Your task to perform on an android device: open the mobile data screen to see how much data has been used Image 0: 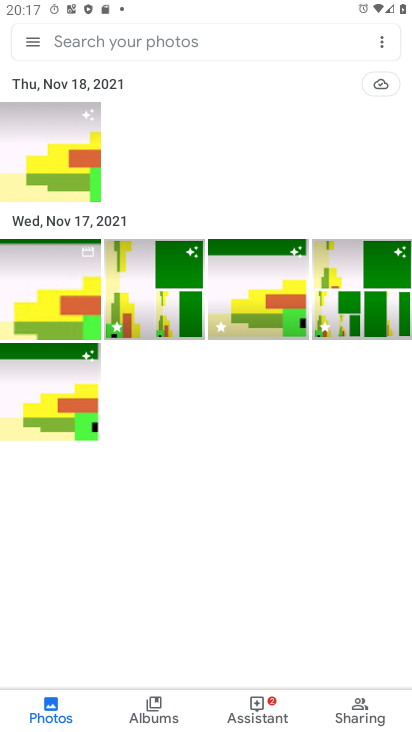
Step 0: press home button
Your task to perform on an android device: open the mobile data screen to see how much data has been used Image 1: 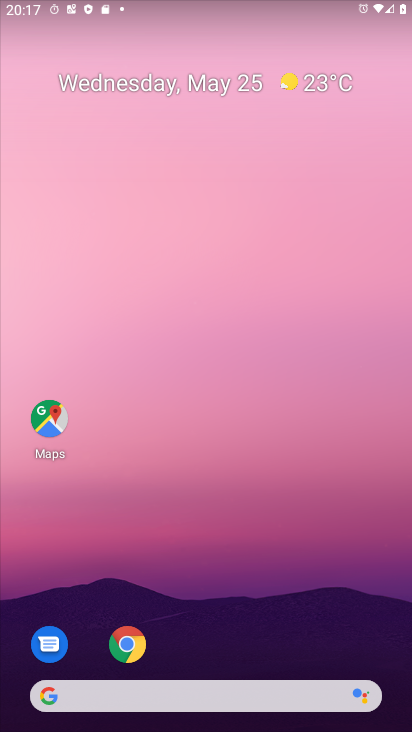
Step 1: drag from (308, 712) to (250, 89)
Your task to perform on an android device: open the mobile data screen to see how much data has been used Image 2: 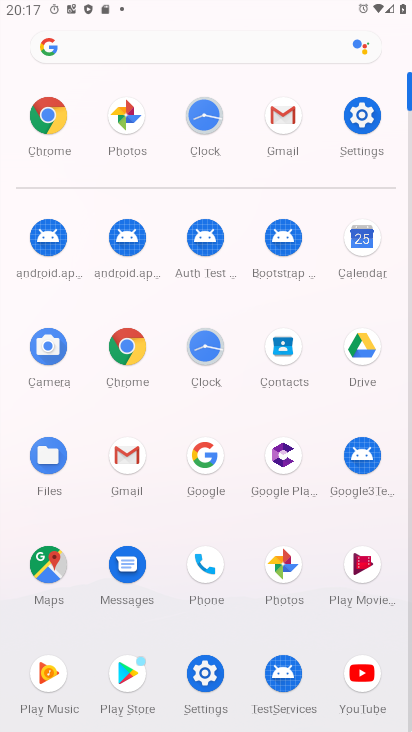
Step 2: click (192, 670)
Your task to perform on an android device: open the mobile data screen to see how much data has been used Image 3: 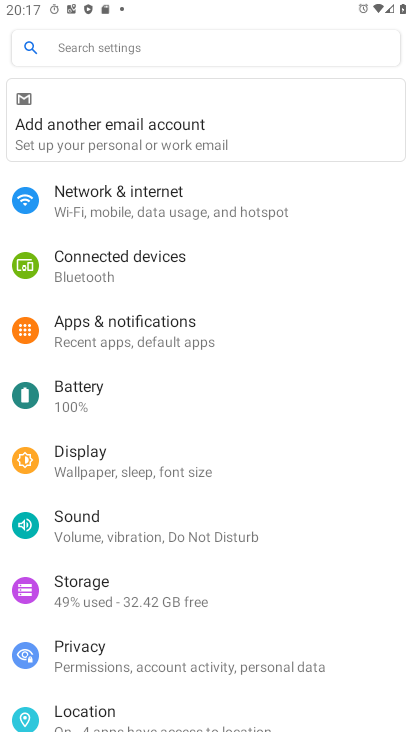
Step 3: click (127, 47)
Your task to perform on an android device: open the mobile data screen to see how much data has been used Image 4: 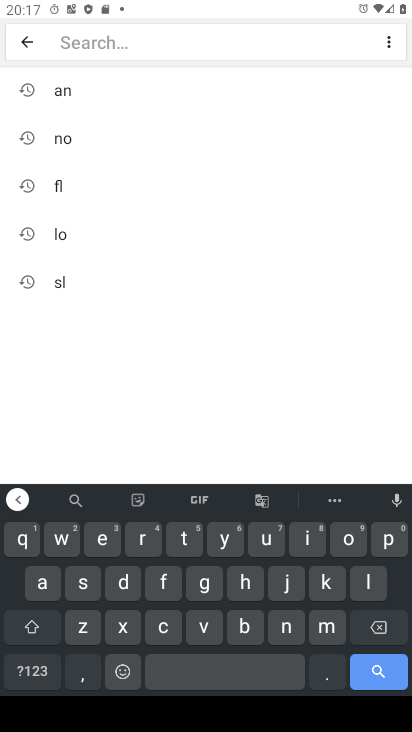
Step 4: click (270, 543)
Your task to perform on an android device: open the mobile data screen to see how much data has been used Image 5: 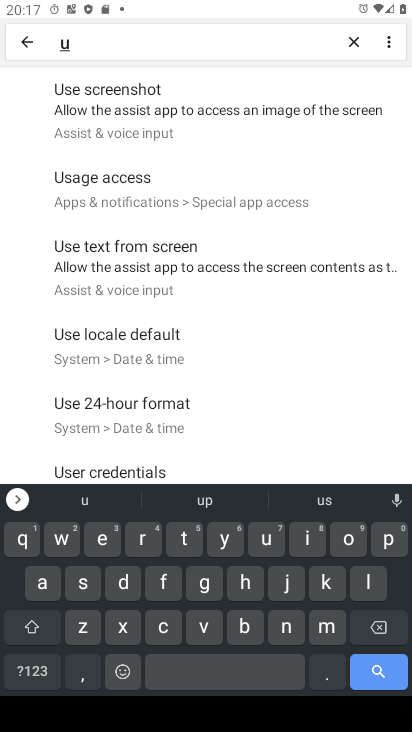
Step 5: click (380, 635)
Your task to perform on an android device: open the mobile data screen to see how much data has been used Image 6: 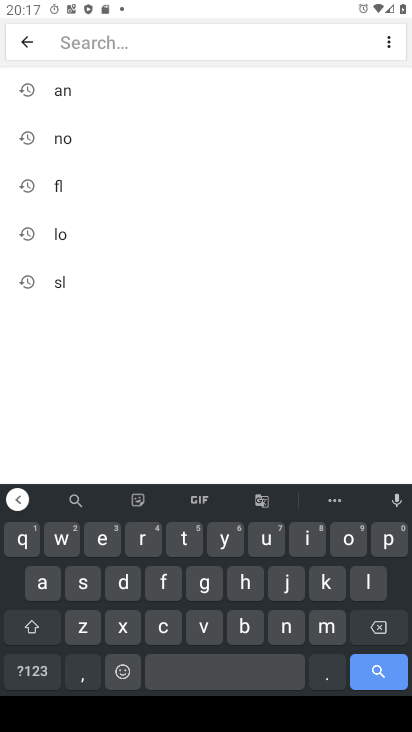
Step 6: click (117, 582)
Your task to perform on an android device: open the mobile data screen to see how much data has been used Image 7: 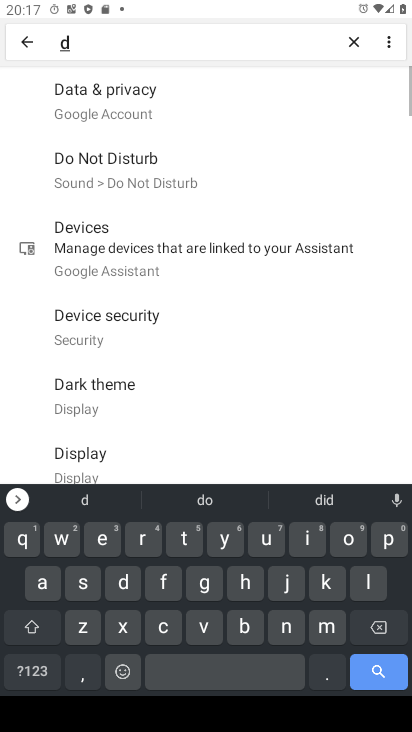
Step 7: click (44, 586)
Your task to perform on an android device: open the mobile data screen to see how much data has been used Image 8: 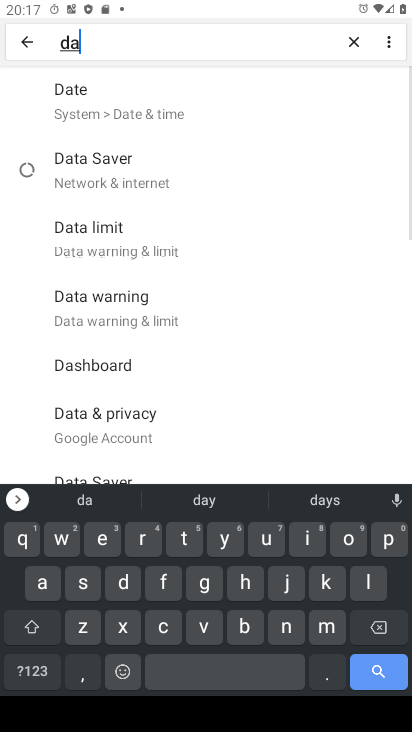
Step 8: click (187, 533)
Your task to perform on an android device: open the mobile data screen to see how much data has been used Image 9: 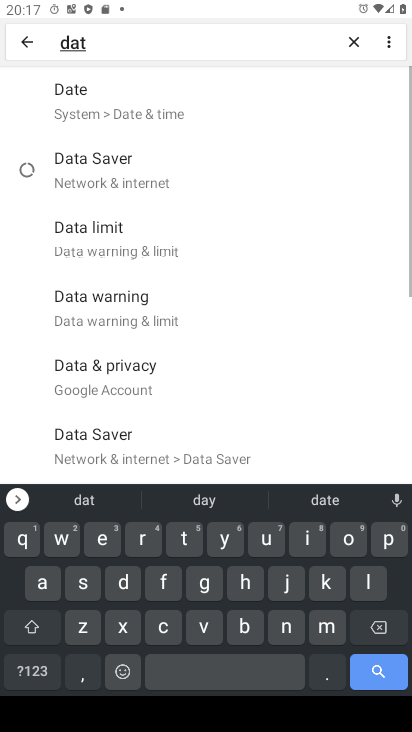
Step 9: click (34, 582)
Your task to perform on an android device: open the mobile data screen to see how much data has been used Image 10: 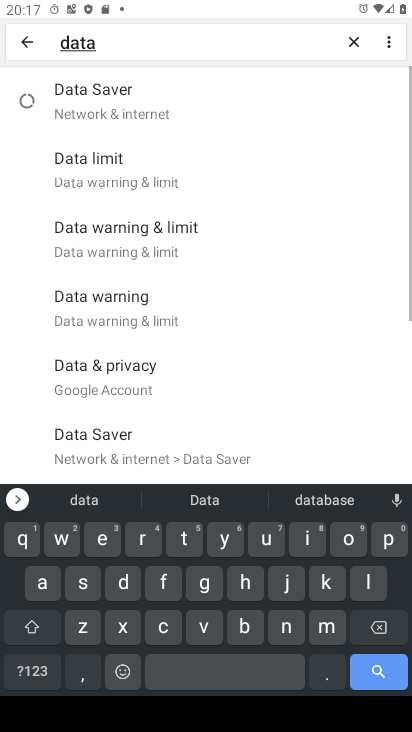
Step 10: click (221, 677)
Your task to perform on an android device: open the mobile data screen to see how much data has been used Image 11: 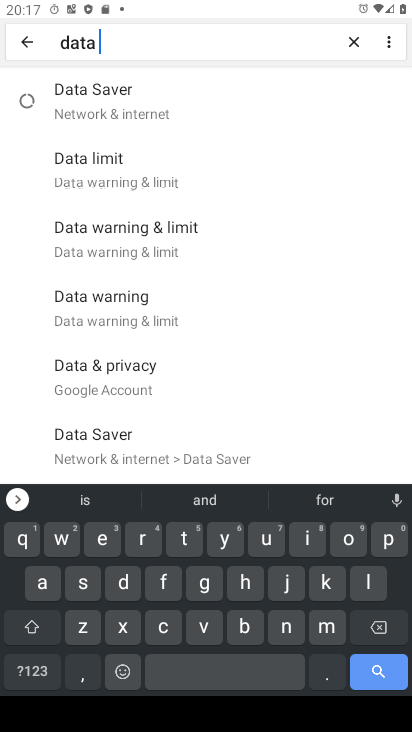
Step 11: click (256, 536)
Your task to perform on an android device: open the mobile data screen to see how much data has been used Image 12: 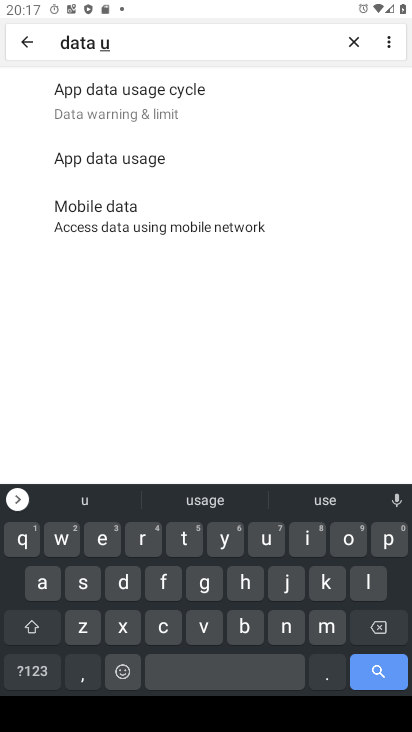
Step 12: click (128, 157)
Your task to perform on an android device: open the mobile data screen to see how much data has been used Image 13: 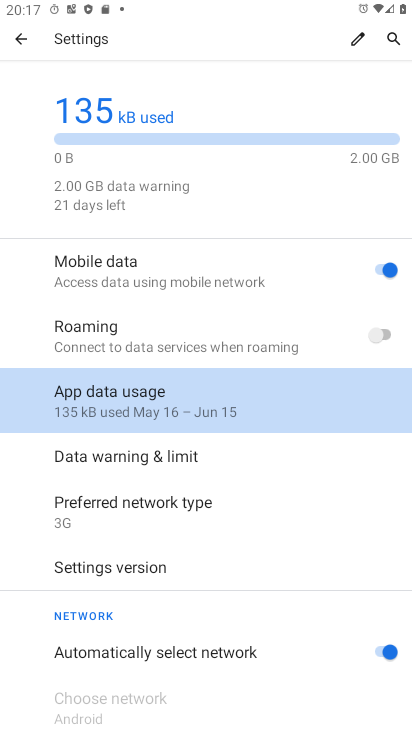
Step 13: click (155, 412)
Your task to perform on an android device: open the mobile data screen to see how much data has been used Image 14: 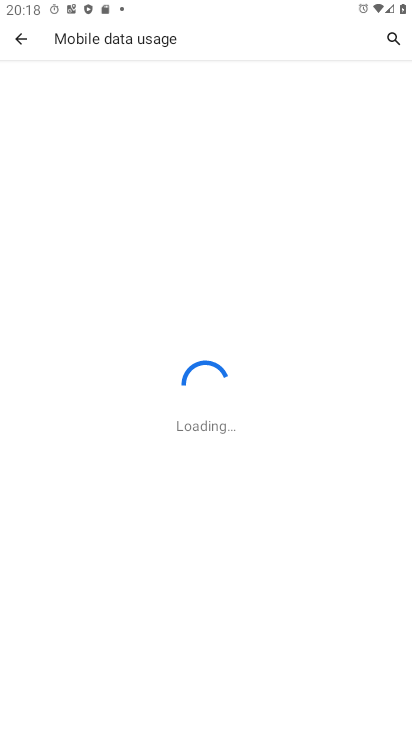
Step 14: task complete